Your task to perform on an android device: Open wifi settings Image 0: 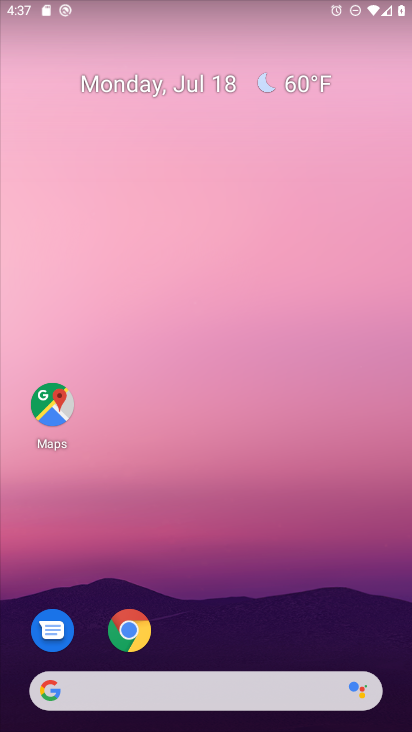
Step 0: drag from (277, 616) to (163, 96)
Your task to perform on an android device: Open wifi settings Image 1: 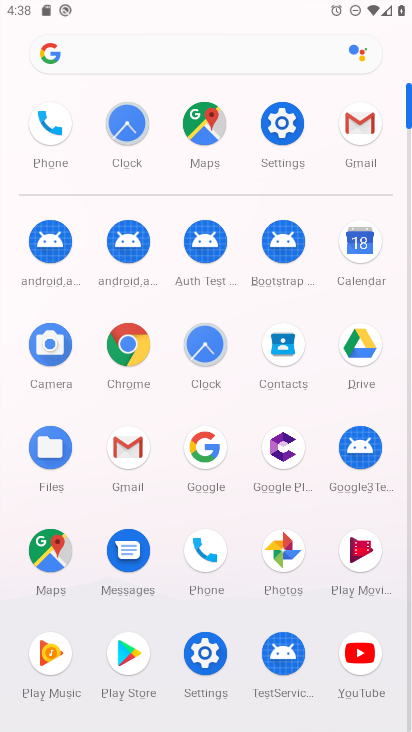
Step 1: click (293, 129)
Your task to perform on an android device: Open wifi settings Image 2: 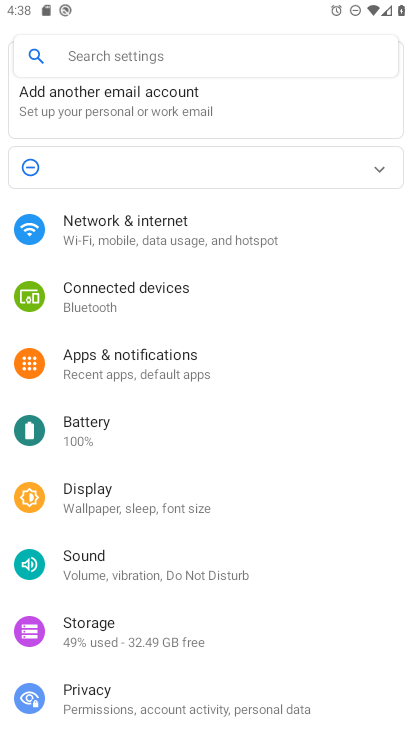
Step 2: click (143, 224)
Your task to perform on an android device: Open wifi settings Image 3: 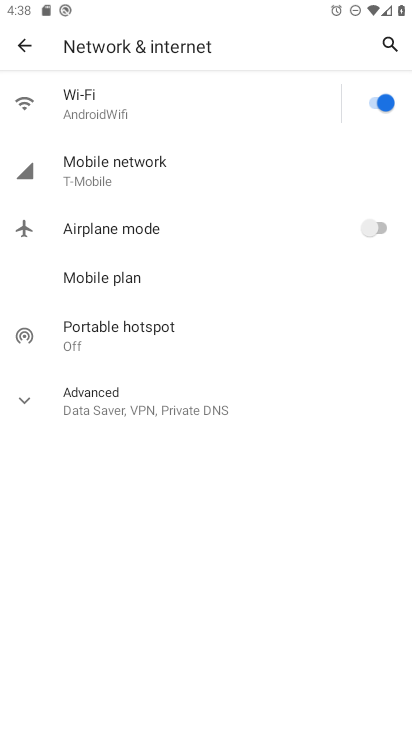
Step 3: click (198, 113)
Your task to perform on an android device: Open wifi settings Image 4: 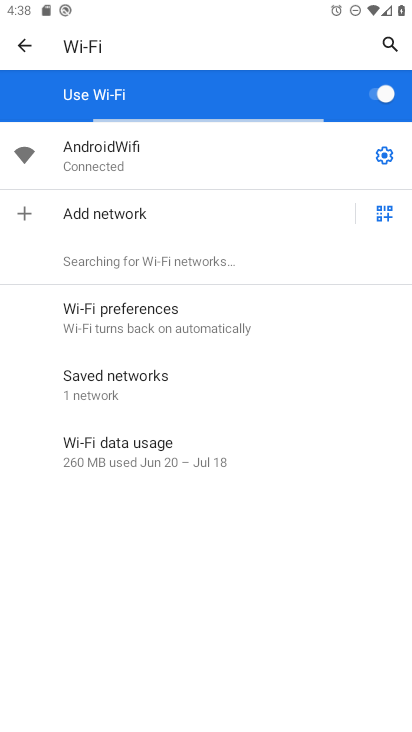
Step 4: task complete